Your task to perform on an android device: open app "Google Docs" (install if not already installed) Image 0: 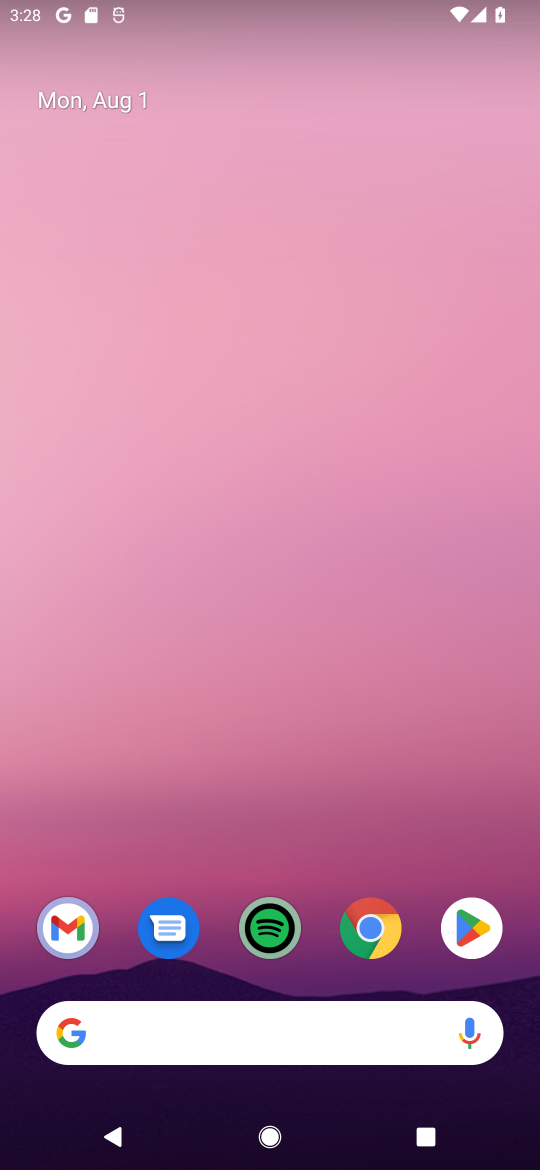
Step 0: click (462, 911)
Your task to perform on an android device: open app "Google Docs" (install if not already installed) Image 1: 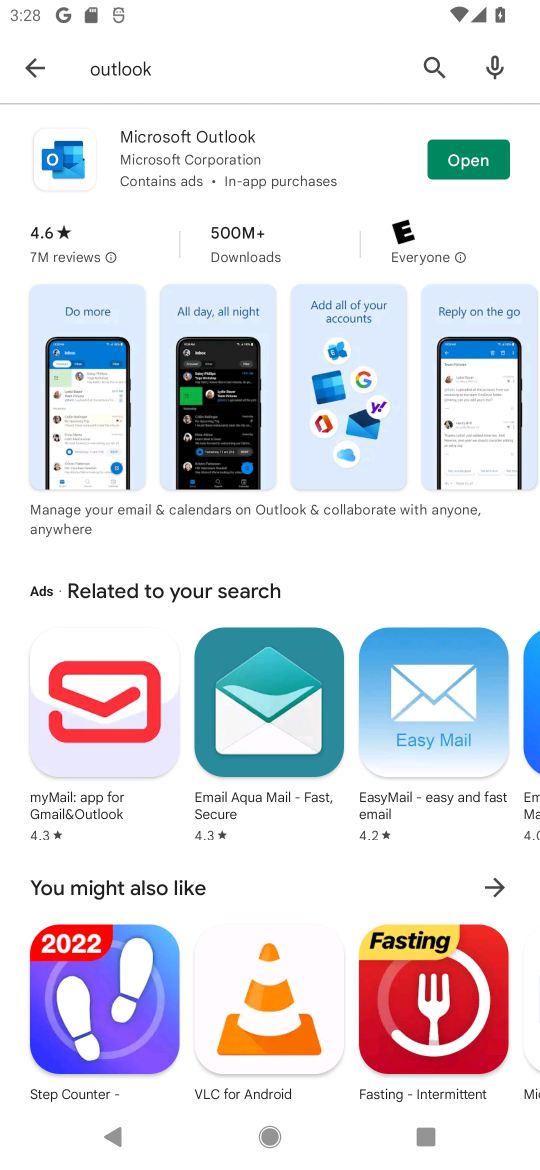
Step 1: click (425, 69)
Your task to perform on an android device: open app "Google Docs" (install if not already installed) Image 2: 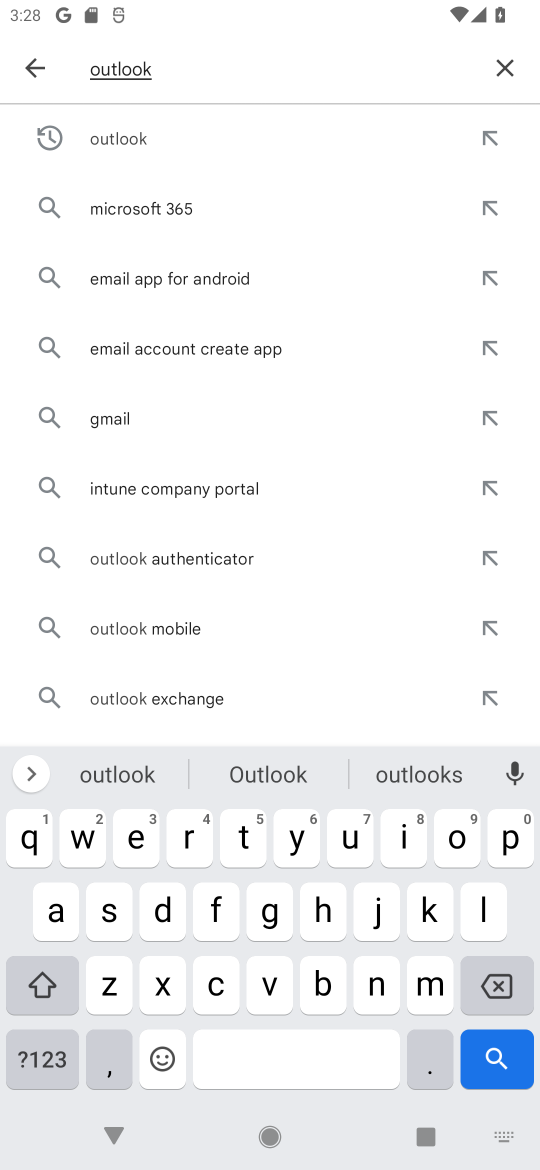
Step 2: click (506, 70)
Your task to perform on an android device: open app "Google Docs" (install if not already installed) Image 3: 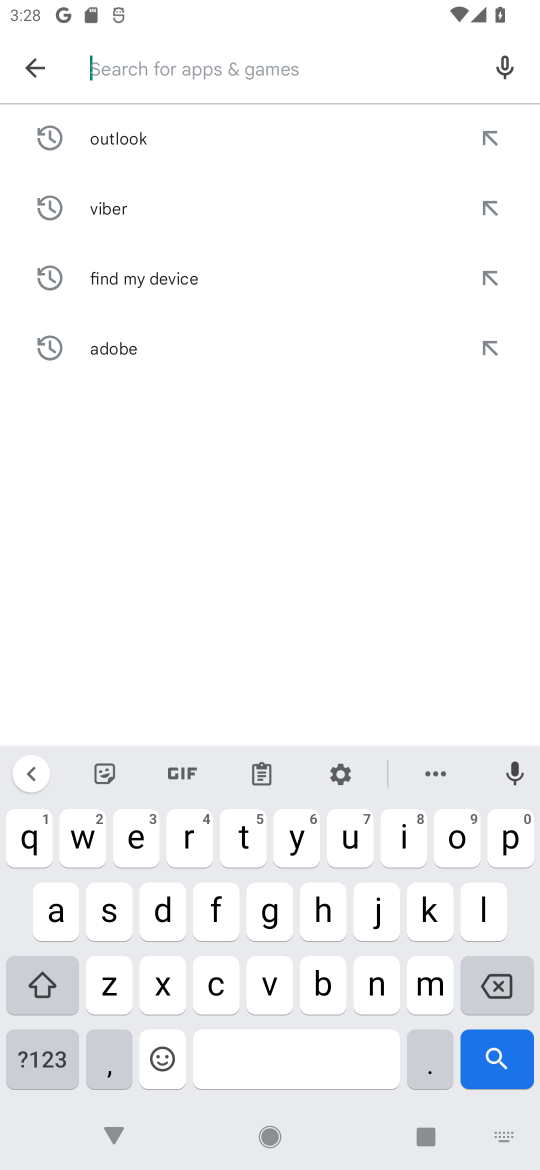
Step 3: type "google docs"
Your task to perform on an android device: open app "Google Docs" (install if not already installed) Image 4: 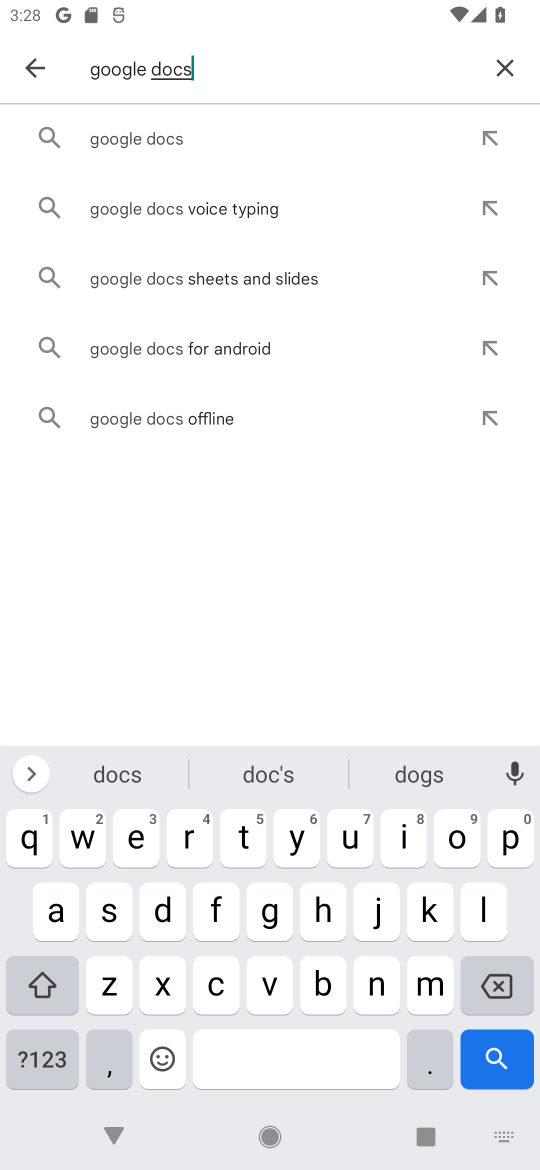
Step 4: click (256, 135)
Your task to perform on an android device: open app "Google Docs" (install if not already installed) Image 5: 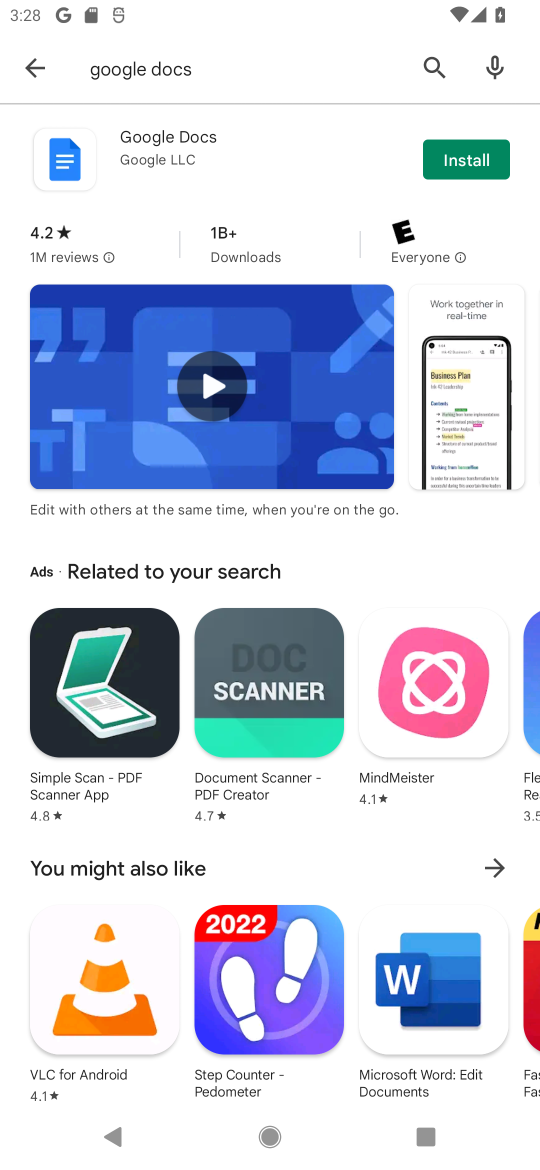
Step 5: click (439, 163)
Your task to perform on an android device: open app "Google Docs" (install if not already installed) Image 6: 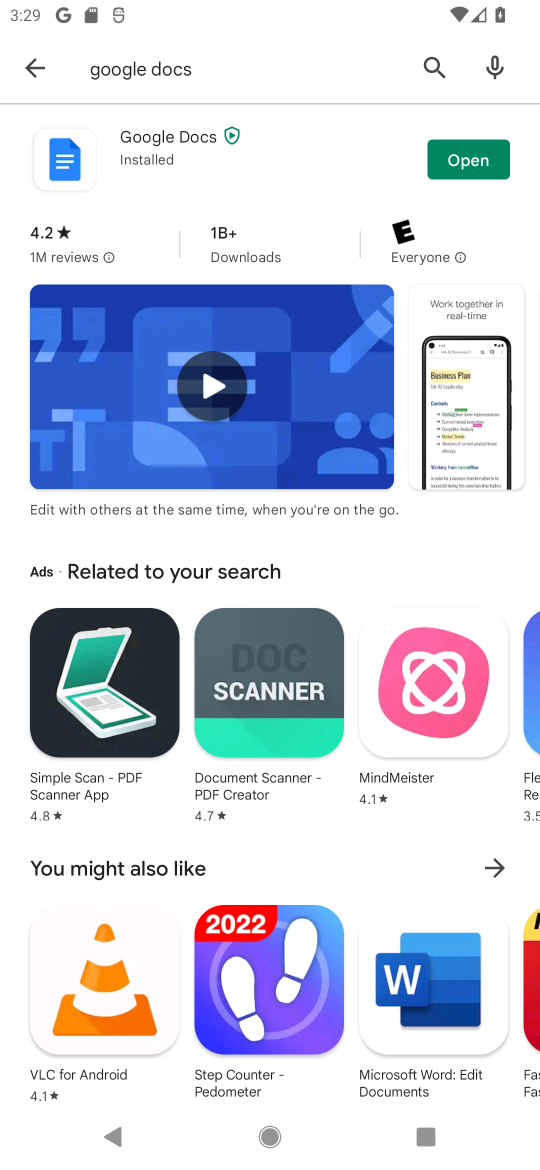
Step 6: click (449, 165)
Your task to perform on an android device: open app "Google Docs" (install if not already installed) Image 7: 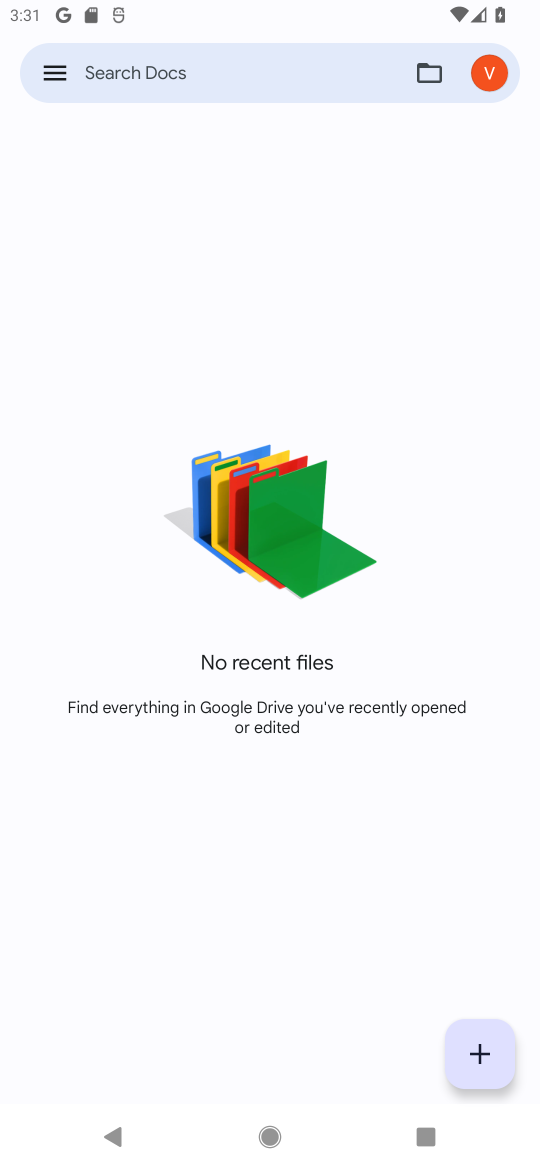
Step 7: task complete